Your task to perform on an android device: toggle sleep mode Image 0: 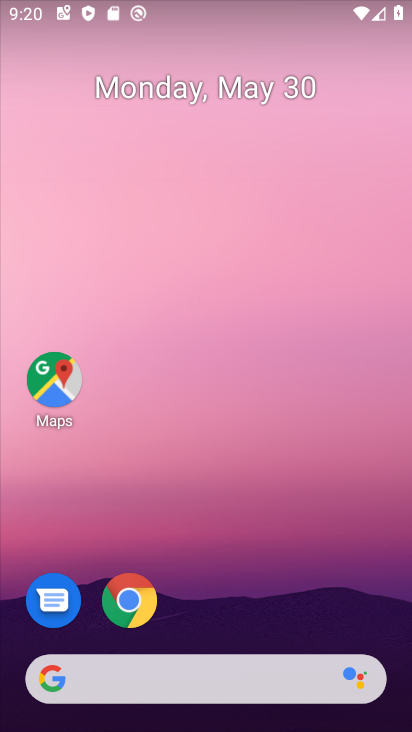
Step 0: press home button
Your task to perform on an android device: toggle sleep mode Image 1: 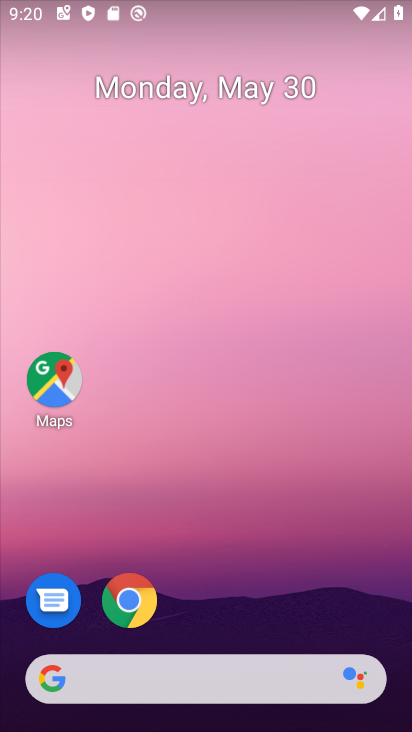
Step 1: drag from (303, 611) to (284, 14)
Your task to perform on an android device: toggle sleep mode Image 2: 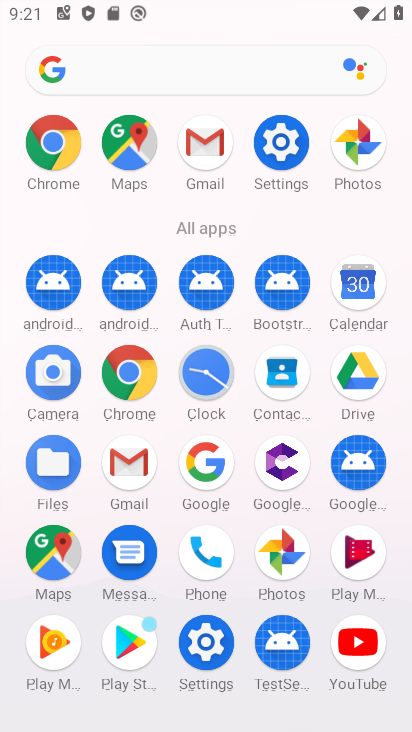
Step 2: click (274, 142)
Your task to perform on an android device: toggle sleep mode Image 3: 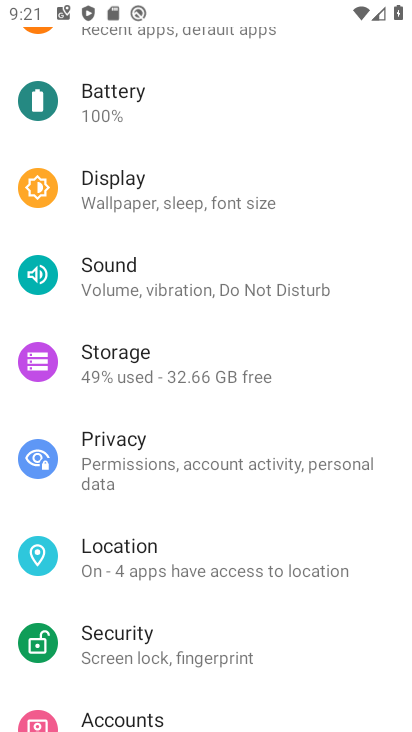
Step 3: click (115, 193)
Your task to perform on an android device: toggle sleep mode Image 4: 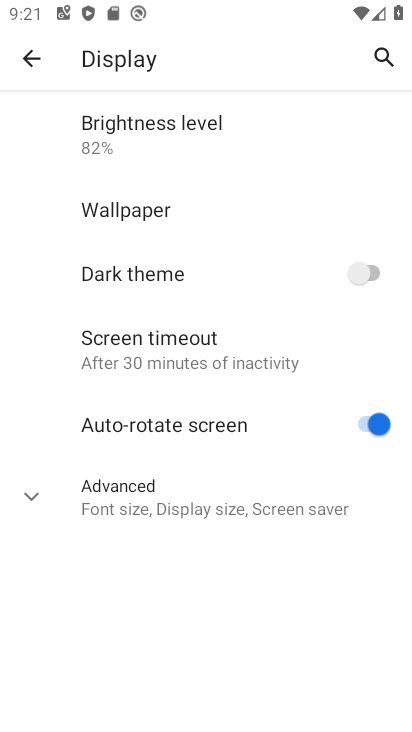
Step 4: task complete